Your task to perform on an android device: choose inbox layout in the gmail app Image 0: 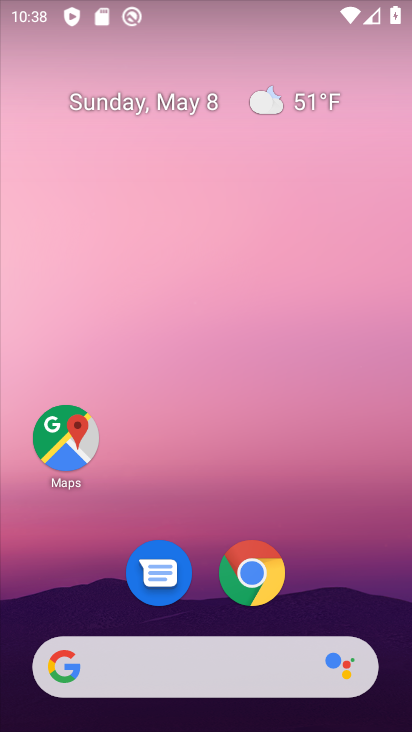
Step 0: drag from (176, 635) to (115, 207)
Your task to perform on an android device: choose inbox layout in the gmail app Image 1: 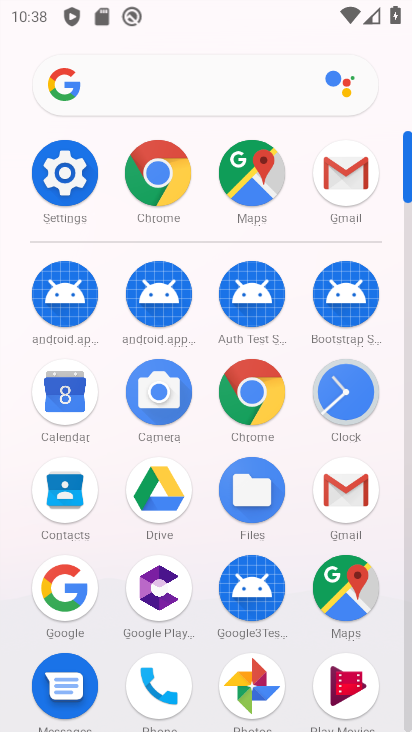
Step 1: click (346, 492)
Your task to perform on an android device: choose inbox layout in the gmail app Image 2: 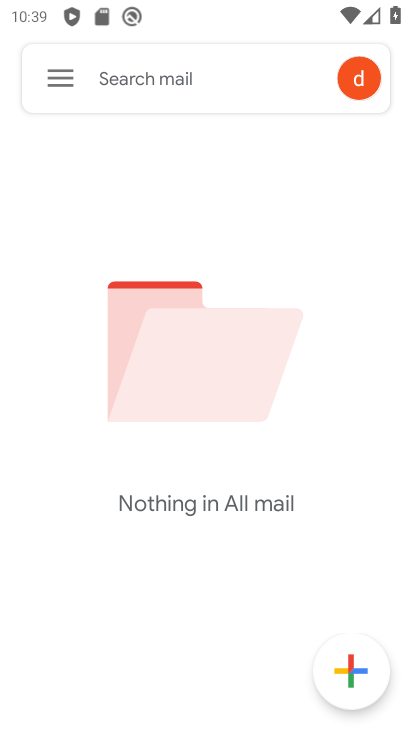
Step 2: press home button
Your task to perform on an android device: choose inbox layout in the gmail app Image 3: 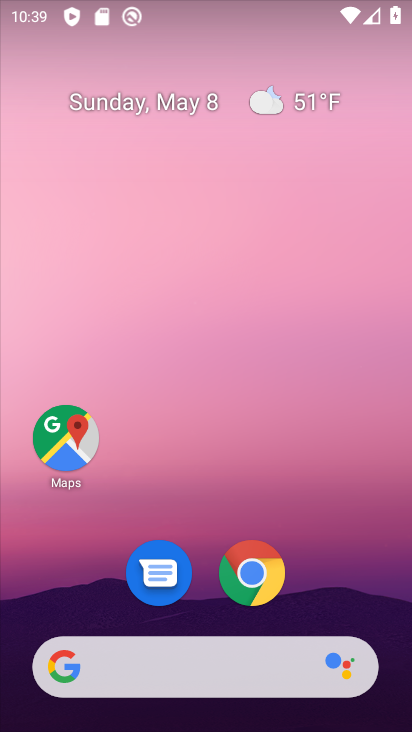
Step 3: drag from (184, 631) to (191, 225)
Your task to perform on an android device: choose inbox layout in the gmail app Image 4: 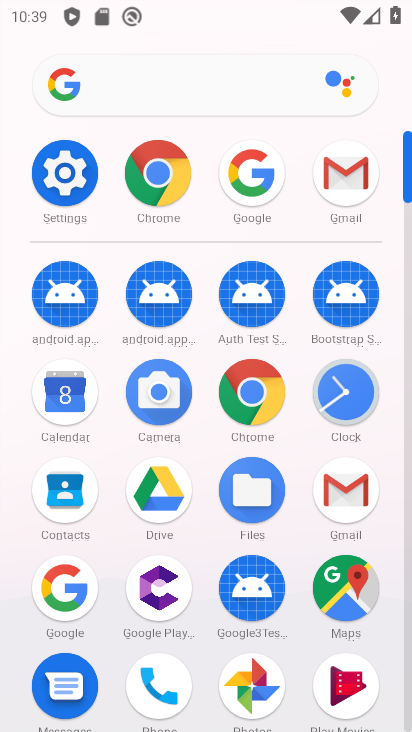
Step 4: click (349, 174)
Your task to perform on an android device: choose inbox layout in the gmail app Image 5: 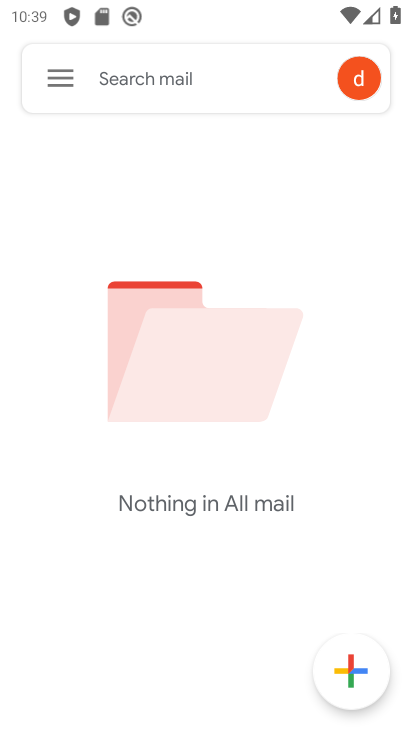
Step 5: click (65, 84)
Your task to perform on an android device: choose inbox layout in the gmail app Image 6: 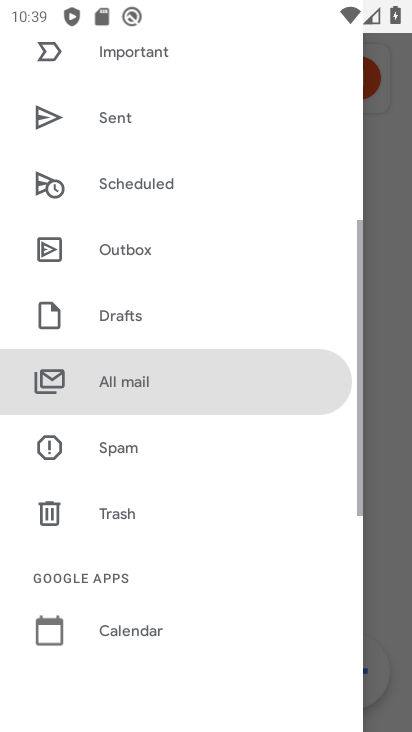
Step 6: drag from (130, 647) to (127, 259)
Your task to perform on an android device: choose inbox layout in the gmail app Image 7: 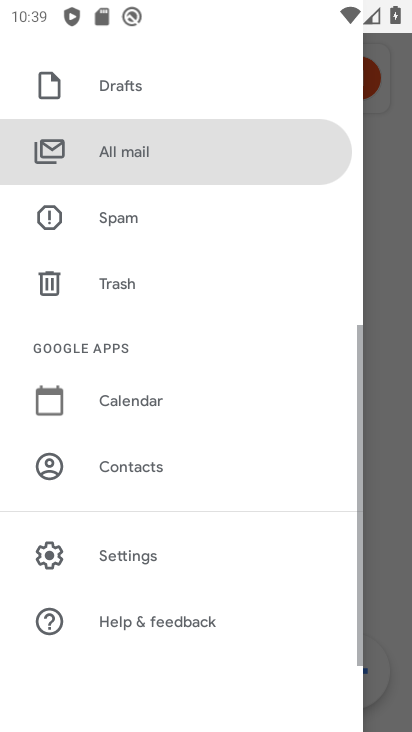
Step 7: click (138, 557)
Your task to perform on an android device: choose inbox layout in the gmail app Image 8: 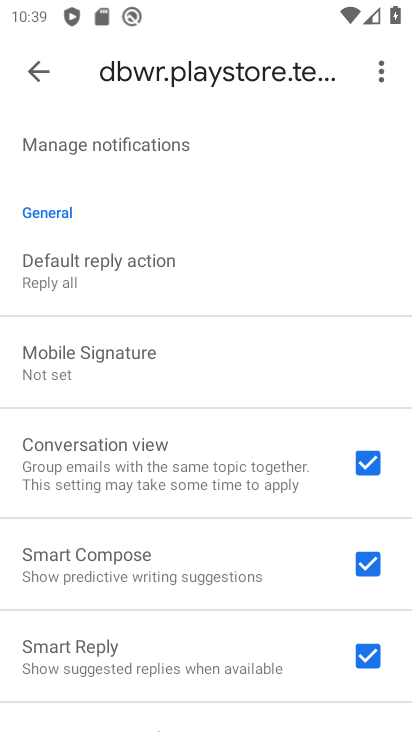
Step 8: drag from (114, 282) to (152, 538)
Your task to perform on an android device: choose inbox layout in the gmail app Image 9: 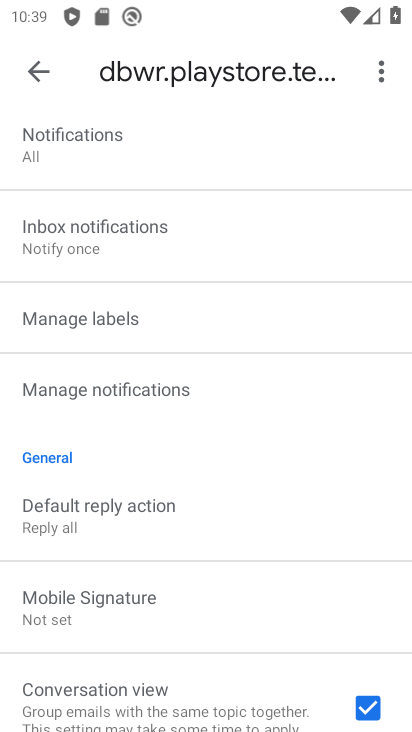
Step 9: drag from (110, 198) to (177, 541)
Your task to perform on an android device: choose inbox layout in the gmail app Image 10: 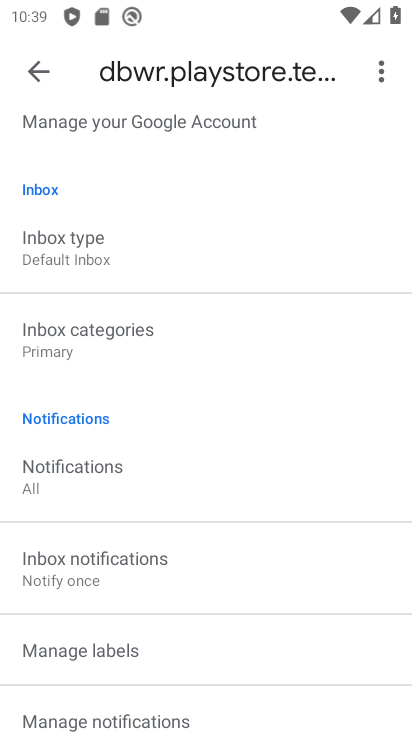
Step 10: click (43, 253)
Your task to perform on an android device: choose inbox layout in the gmail app Image 11: 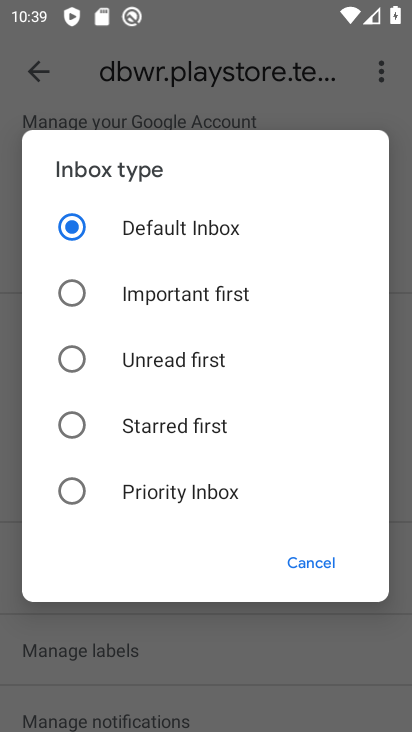
Step 11: click (66, 486)
Your task to perform on an android device: choose inbox layout in the gmail app Image 12: 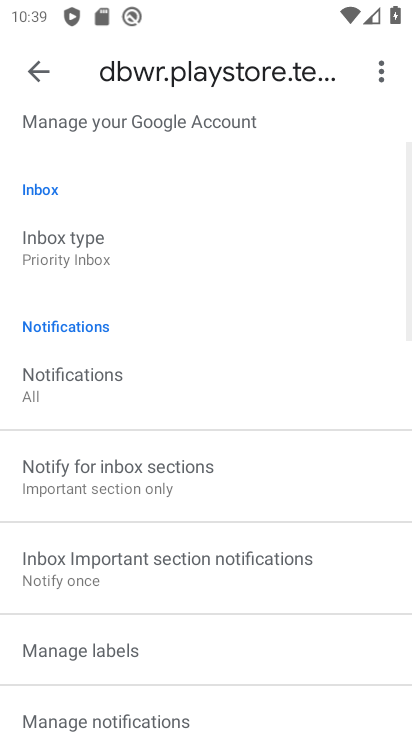
Step 12: task complete